Your task to perform on an android device: toggle data saver in the chrome app Image 0: 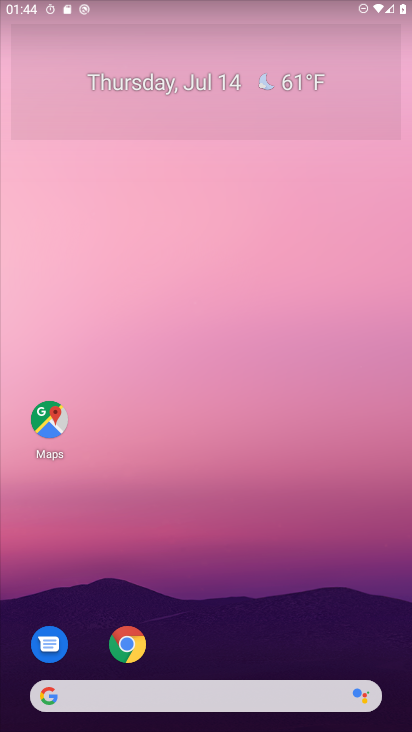
Step 0: drag from (343, 587) to (245, 70)
Your task to perform on an android device: toggle data saver in the chrome app Image 1: 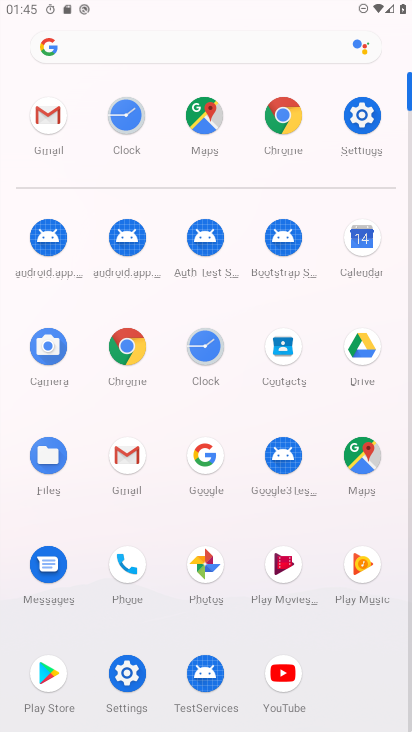
Step 1: click (287, 116)
Your task to perform on an android device: toggle data saver in the chrome app Image 2: 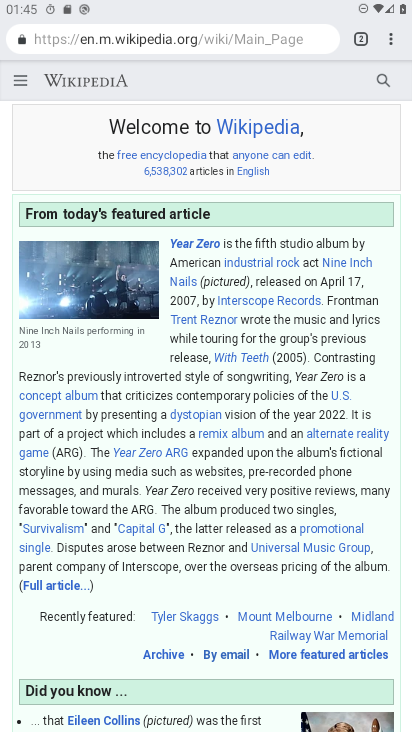
Step 2: drag from (392, 40) to (263, 466)
Your task to perform on an android device: toggle data saver in the chrome app Image 3: 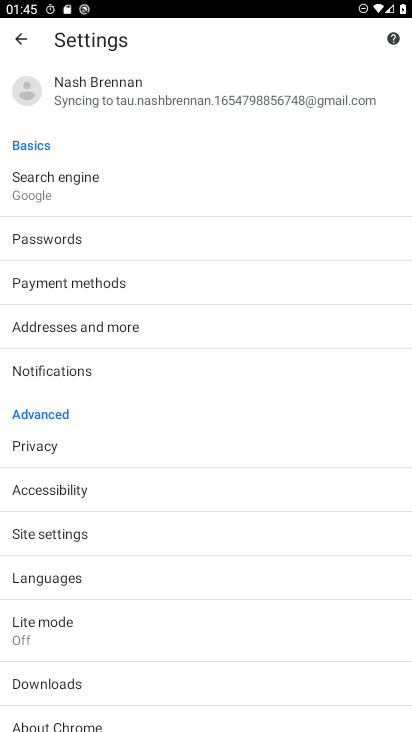
Step 3: click (63, 623)
Your task to perform on an android device: toggle data saver in the chrome app Image 4: 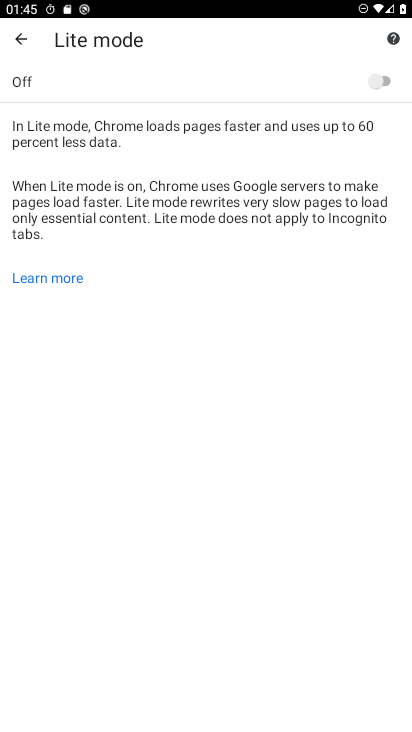
Step 4: click (378, 84)
Your task to perform on an android device: toggle data saver in the chrome app Image 5: 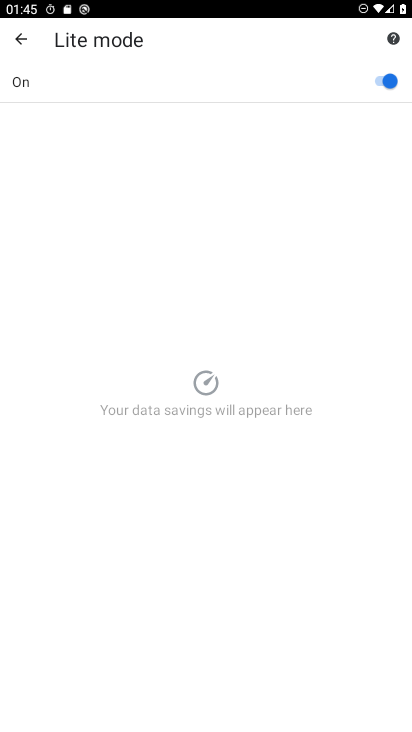
Step 5: task complete